Your task to perform on an android device: Clear the cart on bestbuy. Add logitech g910 to the cart on bestbuy, then select checkout. Image 0: 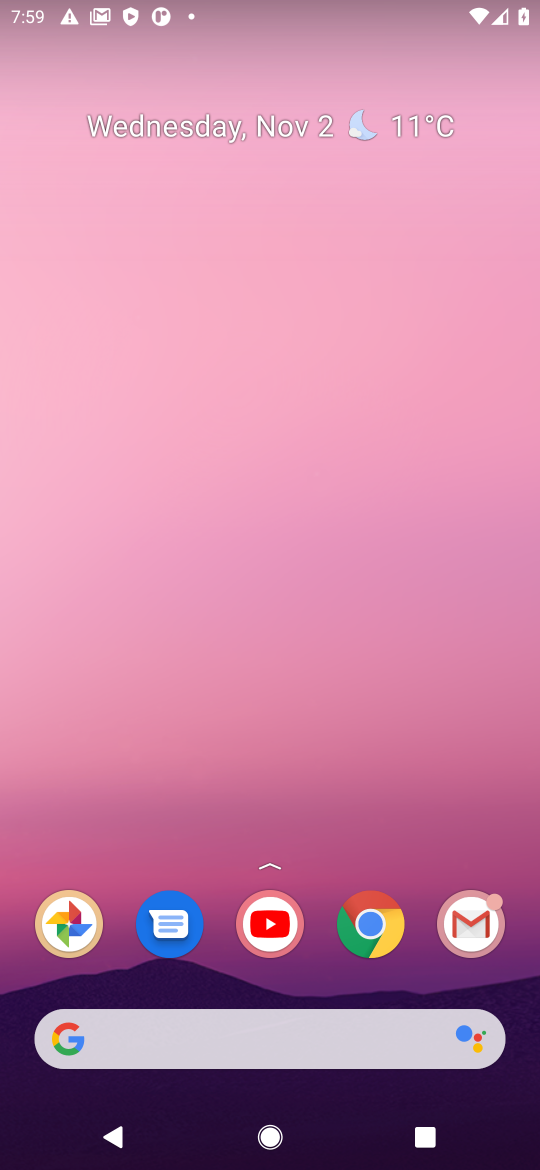
Step 0: click (367, 941)
Your task to perform on an android device: Clear the cart on bestbuy. Add logitech g910 to the cart on bestbuy, then select checkout. Image 1: 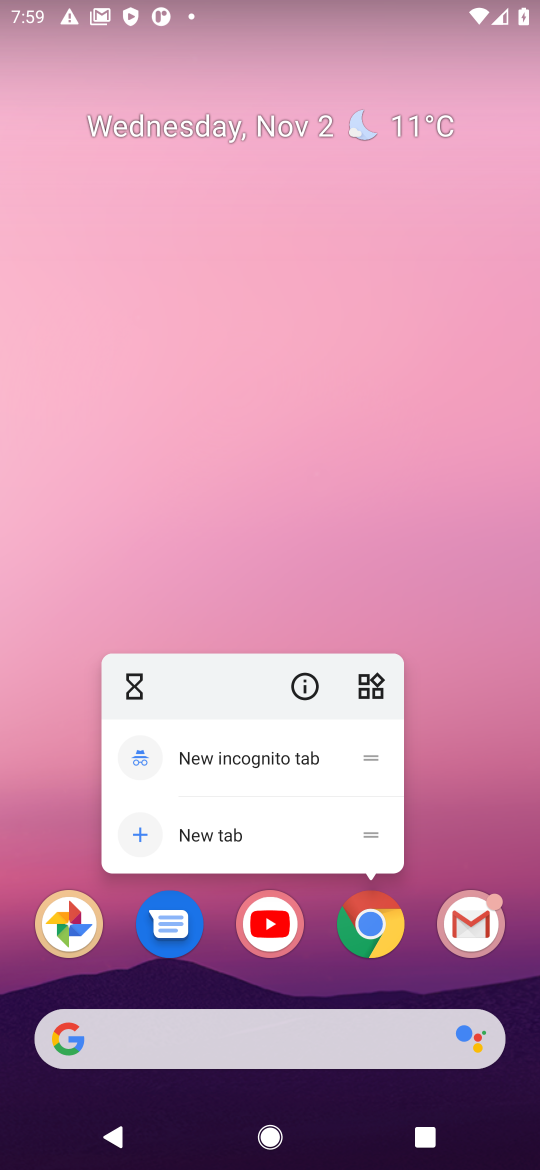
Step 1: click (375, 916)
Your task to perform on an android device: Clear the cart on bestbuy. Add logitech g910 to the cart on bestbuy, then select checkout. Image 2: 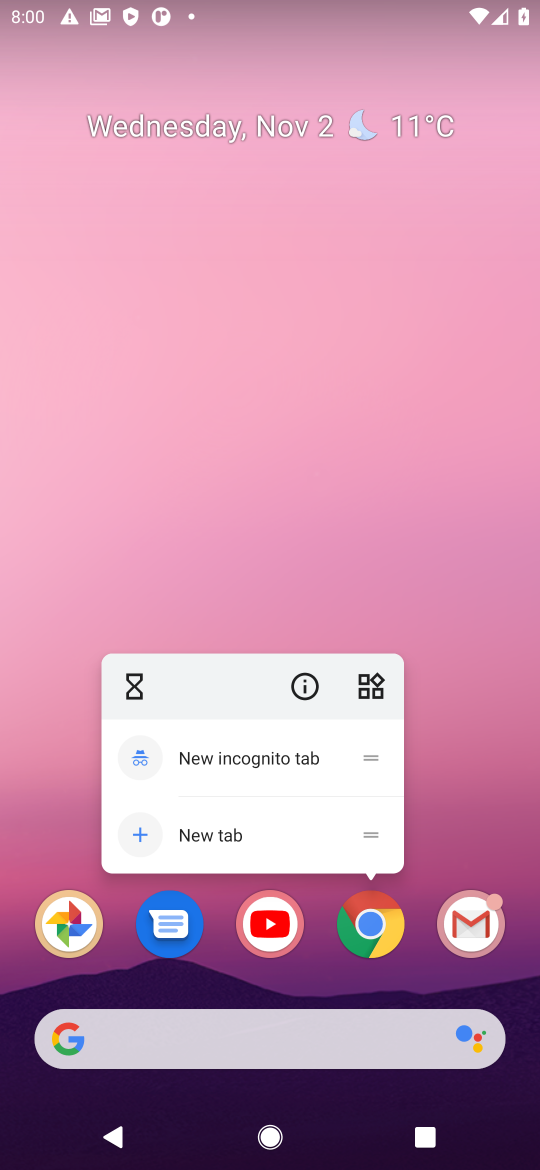
Step 2: click (359, 941)
Your task to perform on an android device: Clear the cart on bestbuy. Add logitech g910 to the cart on bestbuy, then select checkout. Image 3: 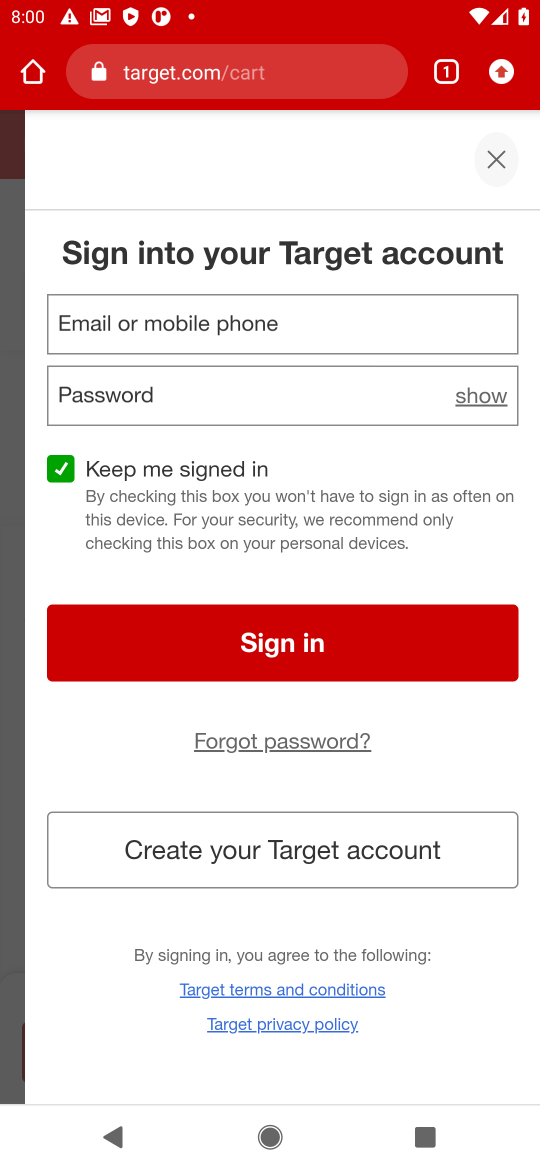
Step 3: click (255, 70)
Your task to perform on an android device: Clear the cart on bestbuy. Add logitech g910 to the cart on bestbuy, then select checkout. Image 4: 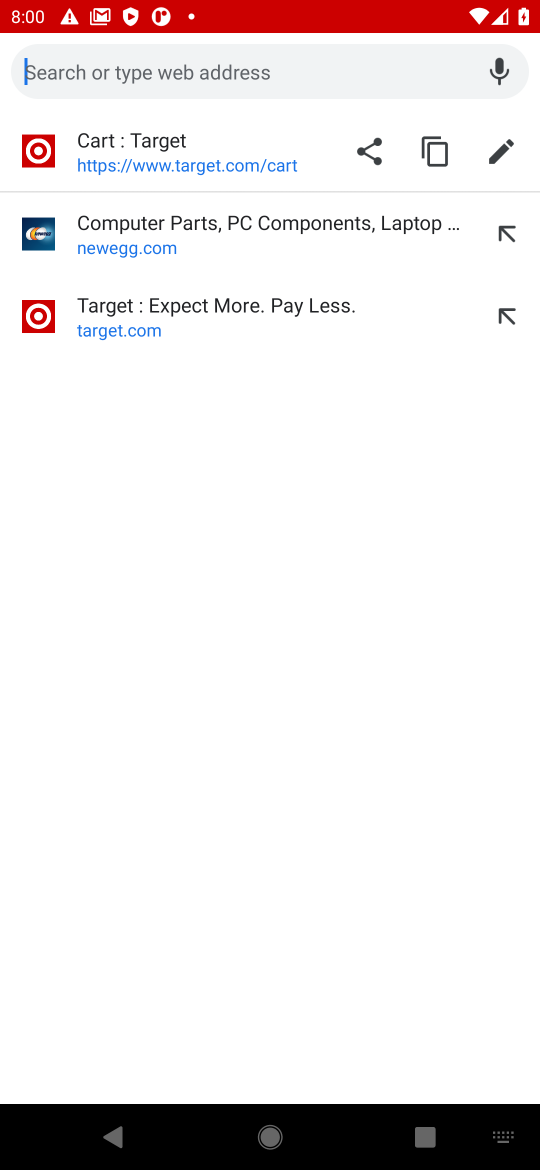
Step 4: type "bestbuy"
Your task to perform on an android device: Clear the cart on bestbuy. Add logitech g910 to the cart on bestbuy, then select checkout. Image 5: 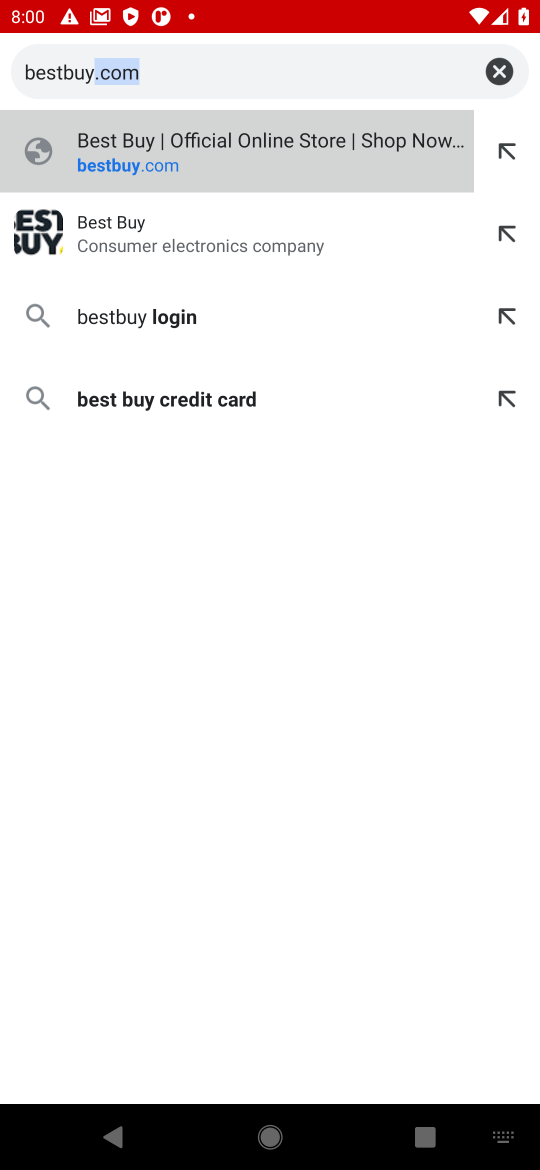
Step 5: type ""
Your task to perform on an android device: Clear the cart on bestbuy. Add logitech g910 to the cart on bestbuy, then select checkout. Image 6: 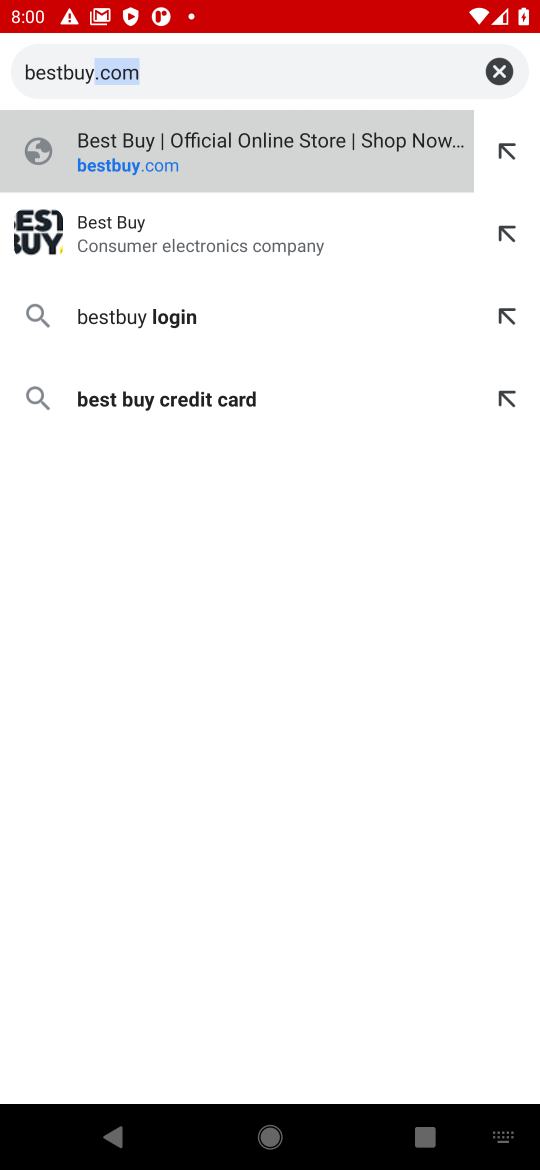
Step 6: click (113, 250)
Your task to perform on an android device: Clear the cart on bestbuy. Add logitech g910 to the cart on bestbuy, then select checkout. Image 7: 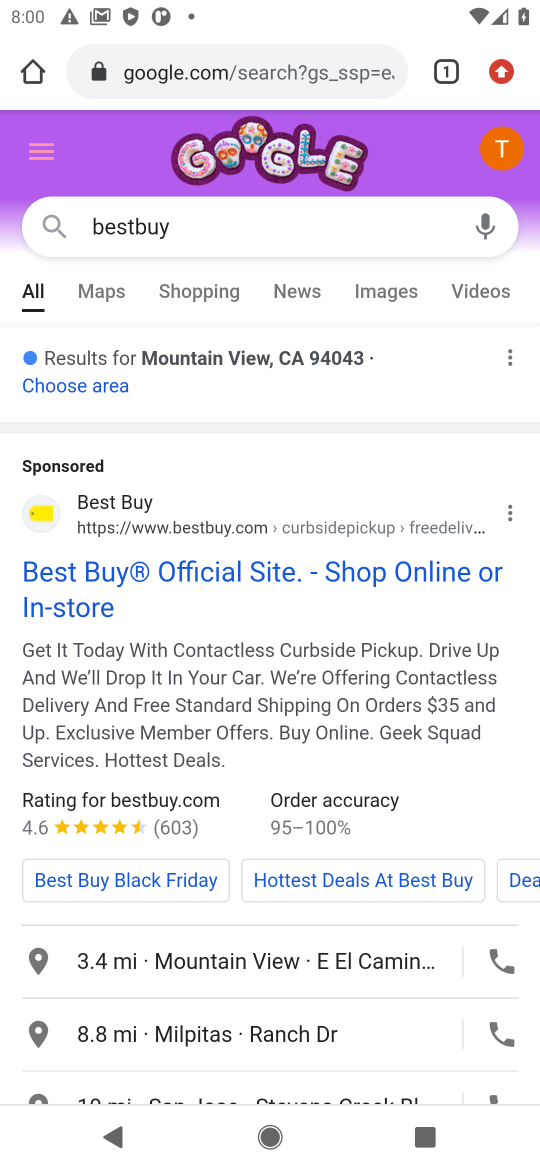
Step 7: click (181, 568)
Your task to perform on an android device: Clear the cart on bestbuy. Add logitech g910 to the cart on bestbuy, then select checkout. Image 8: 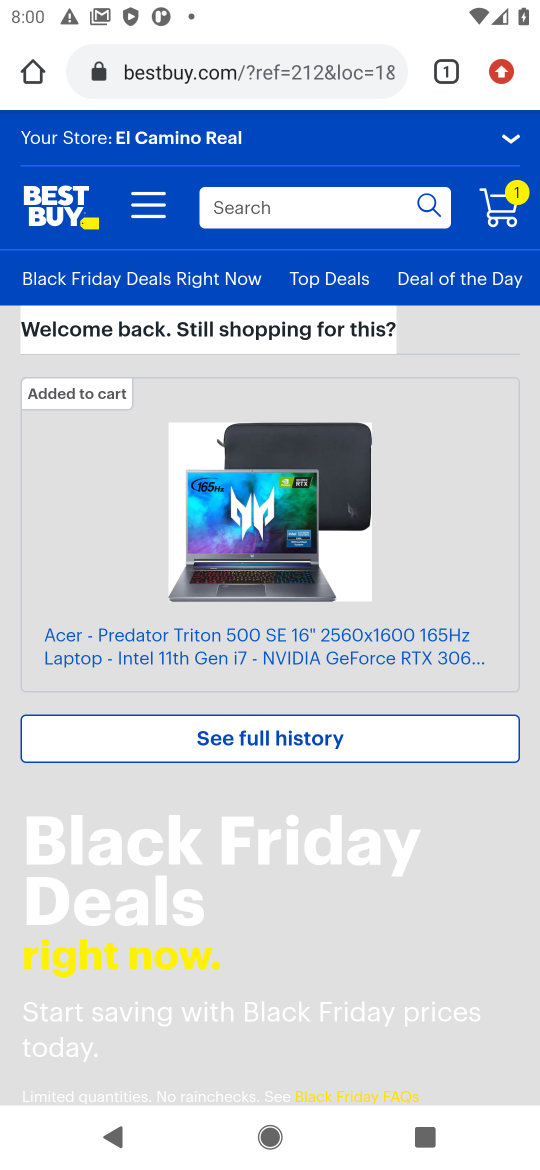
Step 8: click (259, 202)
Your task to perform on an android device: Clear the cart on bestbuy. Add logitech g910 to the cart on bestbuy, then select checkout. Image 9: 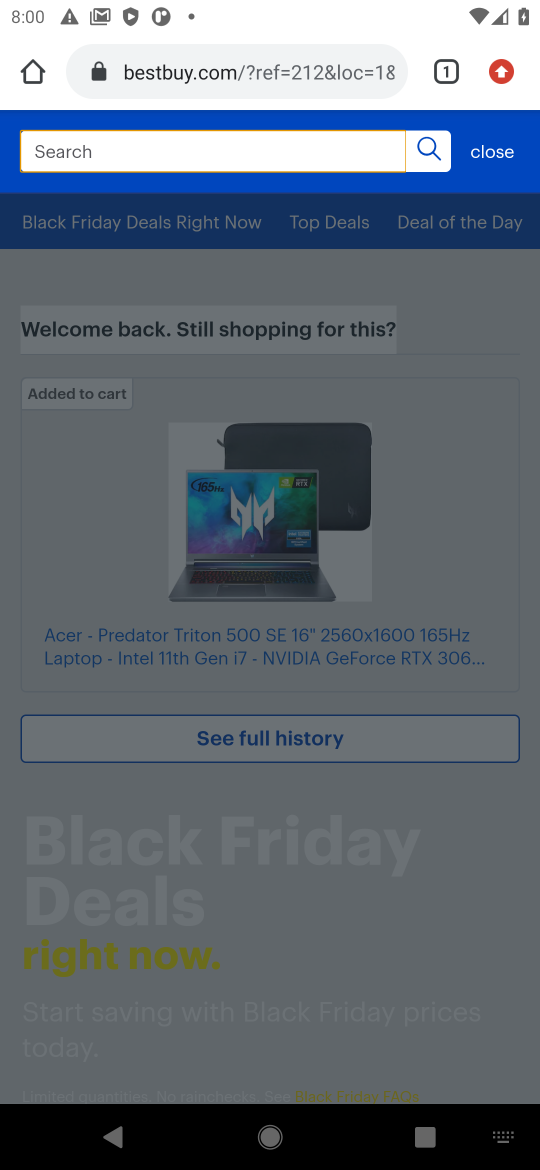
Step 9: type "logitech g 910"
Your task to perform on an android device: Clear the cart on bestbuy. Add logitech g910 to the cart on bestbuy, then select checkout. Image 10: 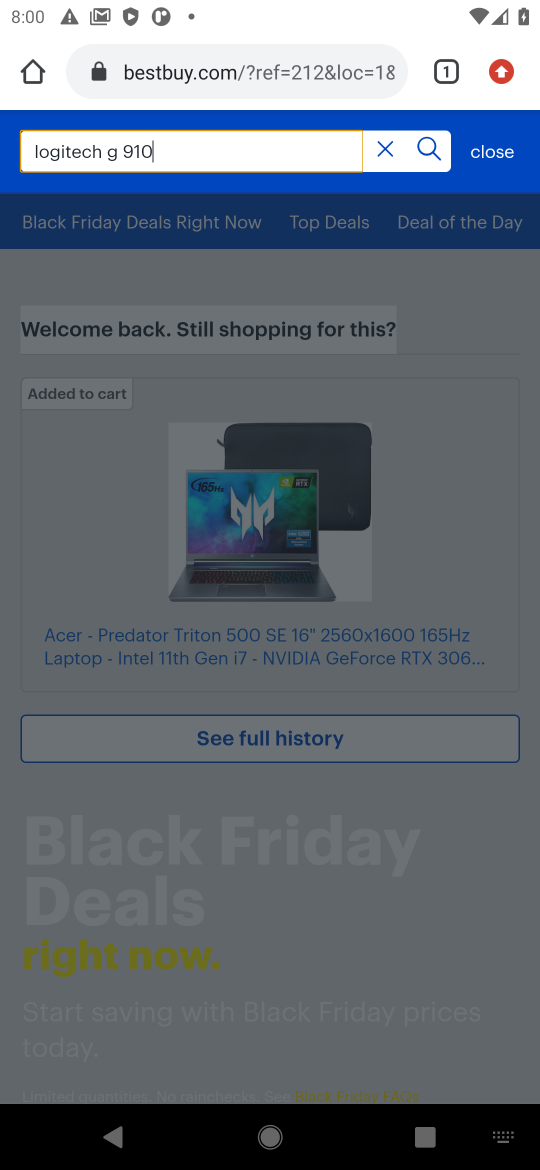
Step 10: type ""
Your task to perform on an android device: Clear the cart on bestbuy. Add logitech g910 to the cart on bestbuy, then select checkout. Image 11: 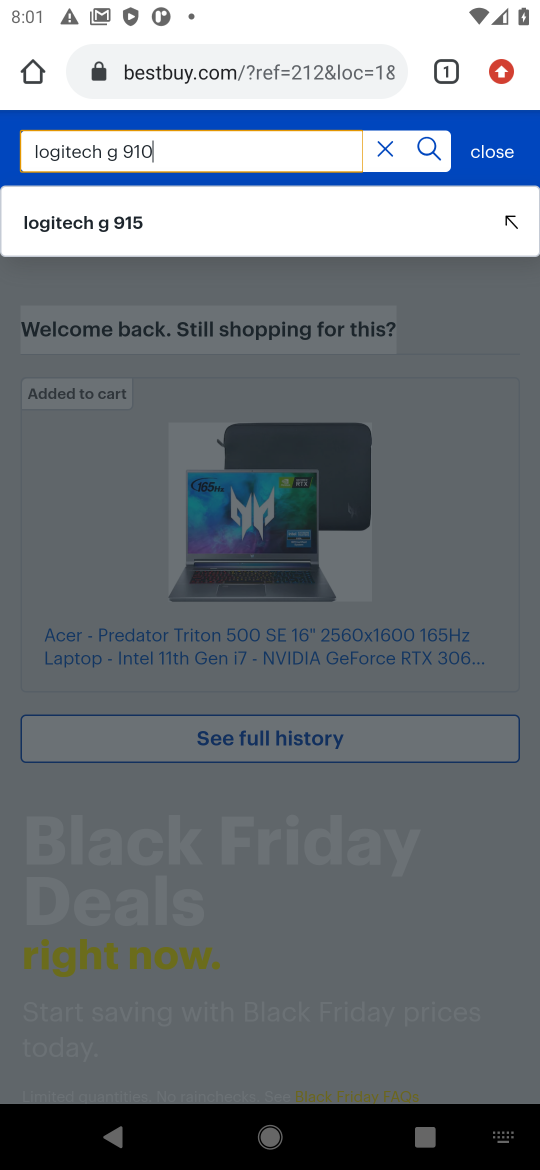
Step 11: click (439, 169)
Your task to perform on an android device: Clear the cart on bestbuy. Add logitech g910 to the cart on bestbuy, then select checkout. Image 12: 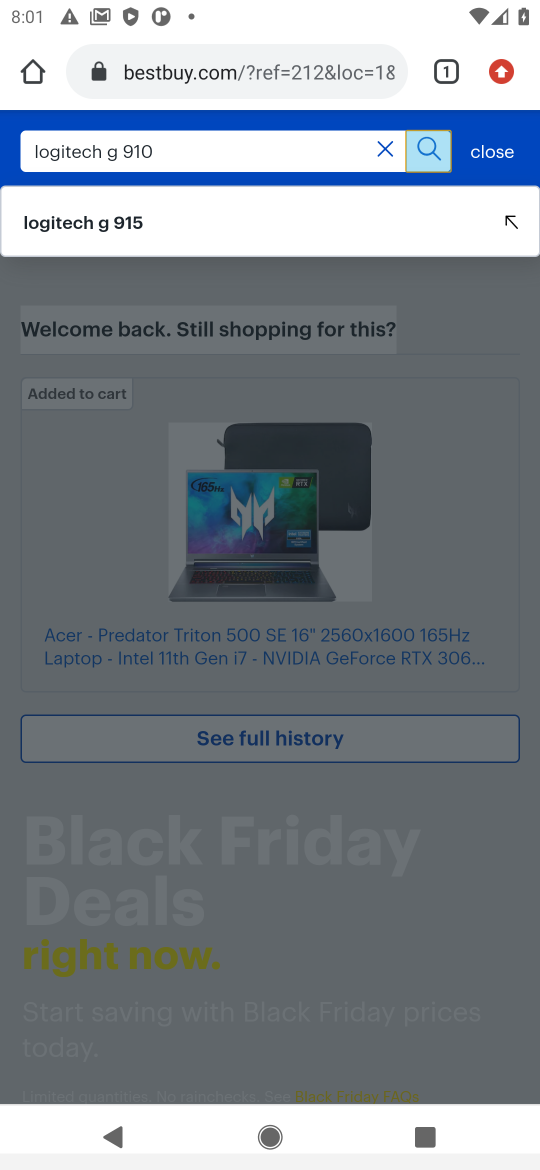
Step 12: click (431, 152)
Your task to perform on an android device: Clear the cart on bestbuy. Add logitech g910 to the cart on bestbuy, then select checkout. Image 13: 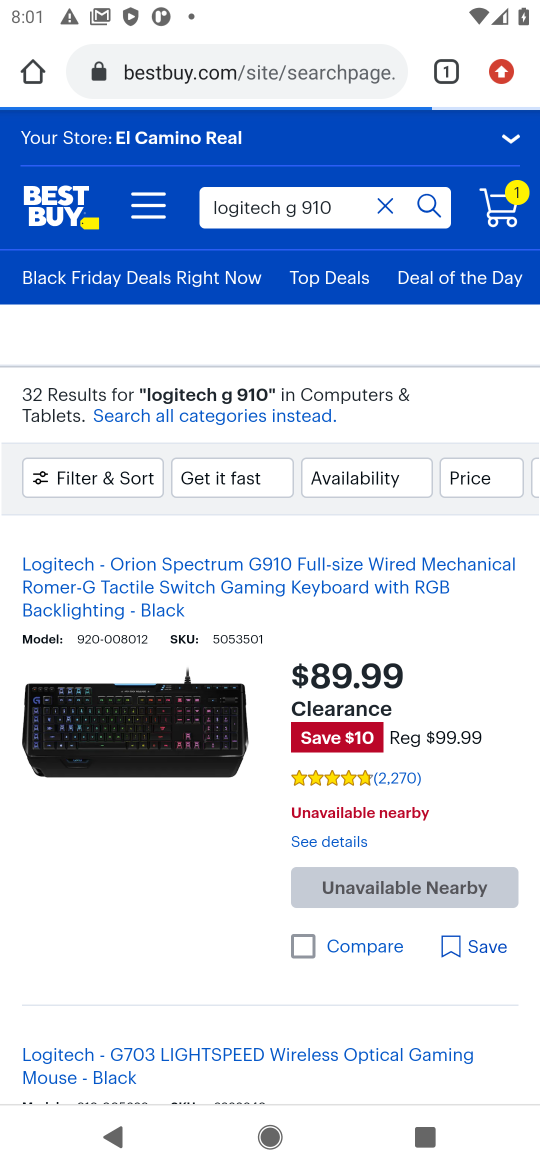
Step 13: drag from (81, 963) to (156, 641)
Your task to perform on an android device: Clear the cart on bestbuy. Add logitech g910 to the cart on bestbuy, then select checkout. Image 14: 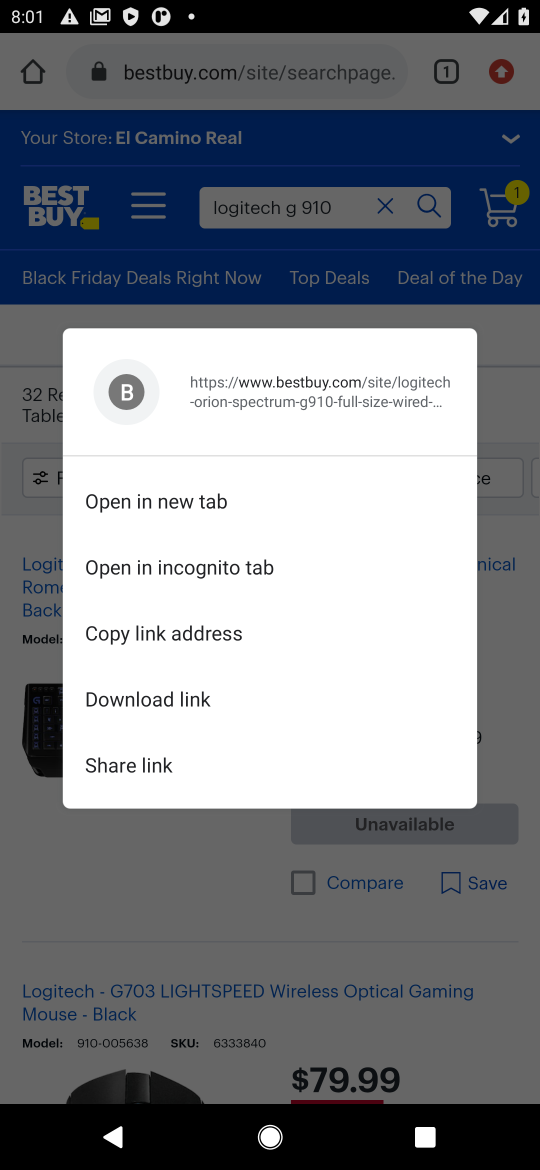
Step 14: click (181, 944)
Your task to perform on an android device: Clear the cart on bestbuy. Add logitech g910 to the cart on bestbuy, then select checkout. Image 15: 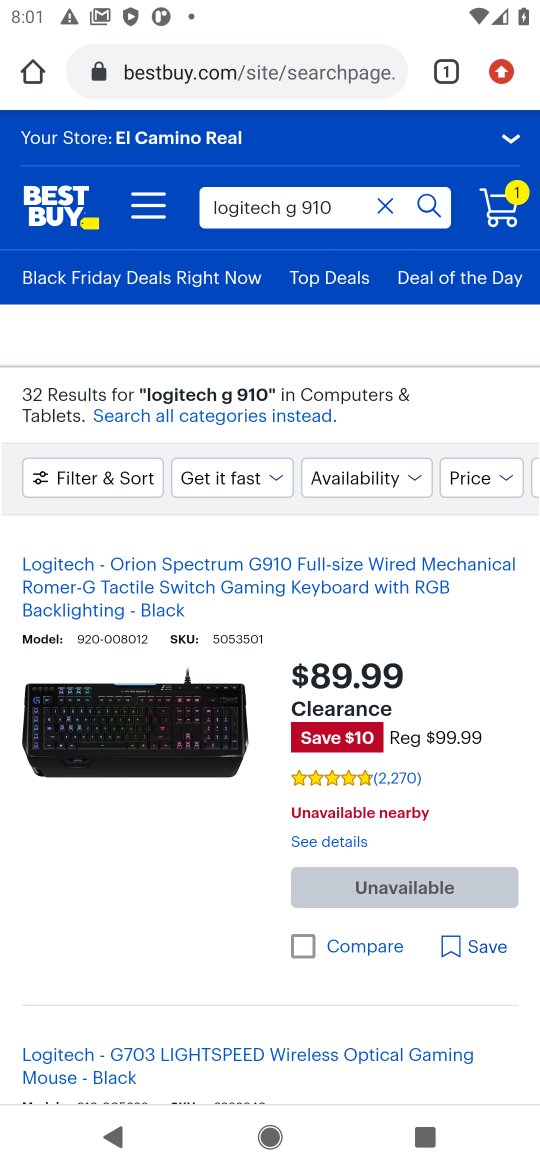
Step 15: drag from (339, 963) to (363, 412)
Your task to perform on an android device: Clear the cart on bestbuy. Add logitech g910 to the cart on bestbuy, then select checkout. Image 16: 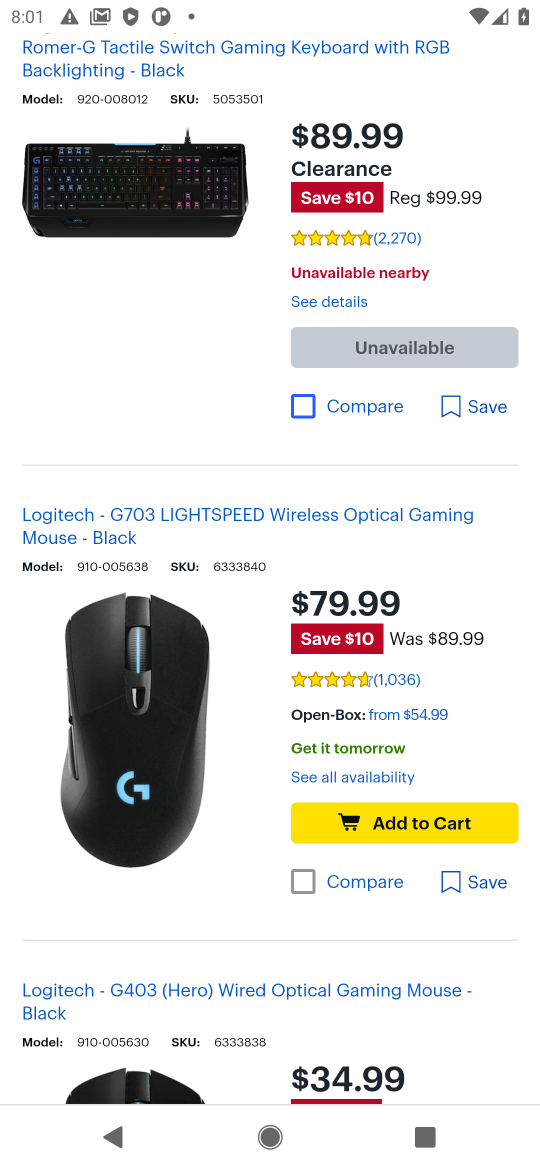
Step 16: drag from (219, 904) to (316, 139)
Your task to perform on an android device: Clear the cart on bestbuy. Add logitech g910 to the cart on bestbuy, then select checkout. Image 17: 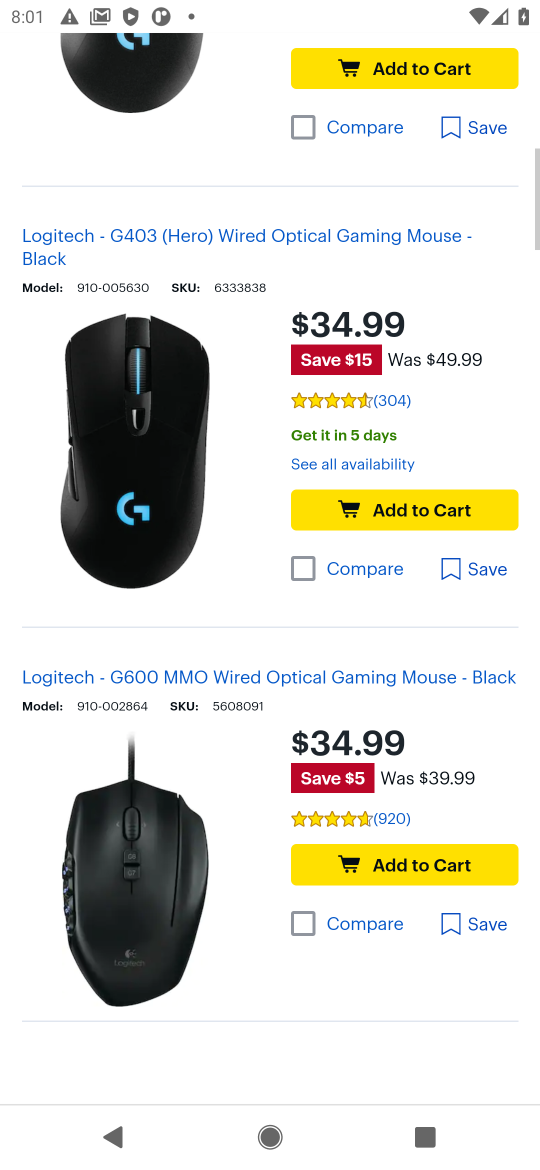
Step 17: drag from (177, 935) to (205, 589)
Your task to perform on an android device: Clear the cart on bestbuy. Add logitech g910 to the cart on bestbuy, then select checkout. Image 18: 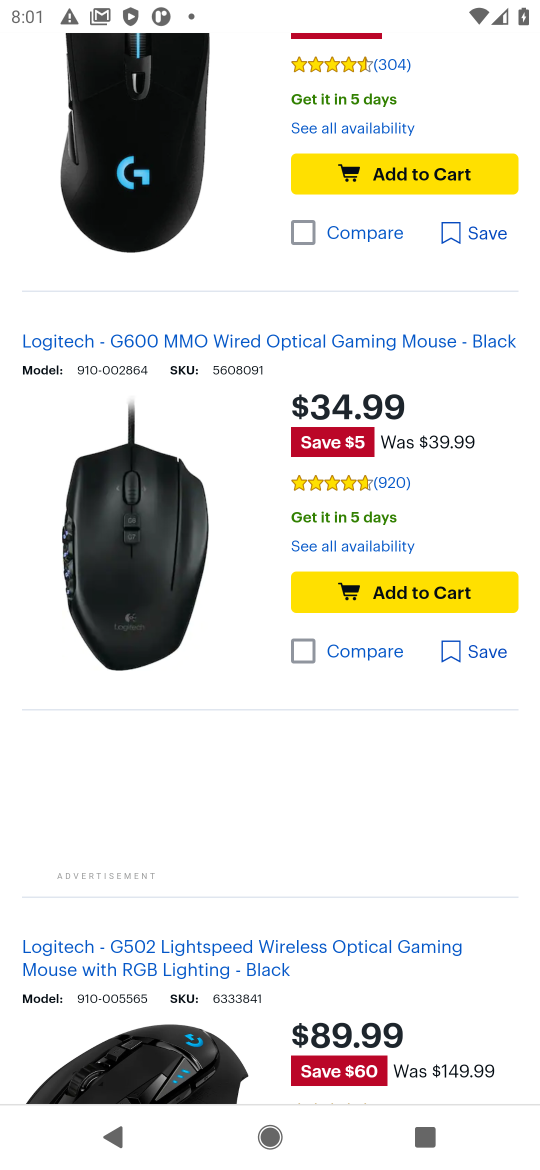
Step 18: drag from (198, 681) to (205, 570)
Your task to perform on an android device: Clear the cart on bestbuy. Add logitech g910 to the cart on bestbuy, then select checkout. Image 19: 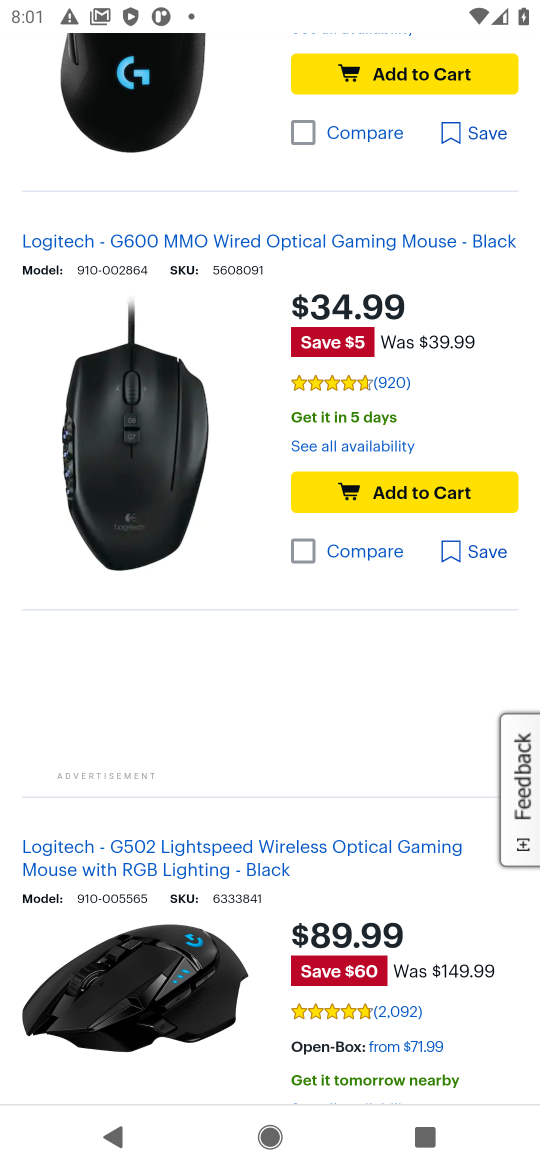
Step 19: drag from (224, 1002) to (211, 608)
Your task to perform on an android device: Clear the cart on bestbuy. Add logitech g910 to the cart on bestbuy, then select checkout. Image 20: 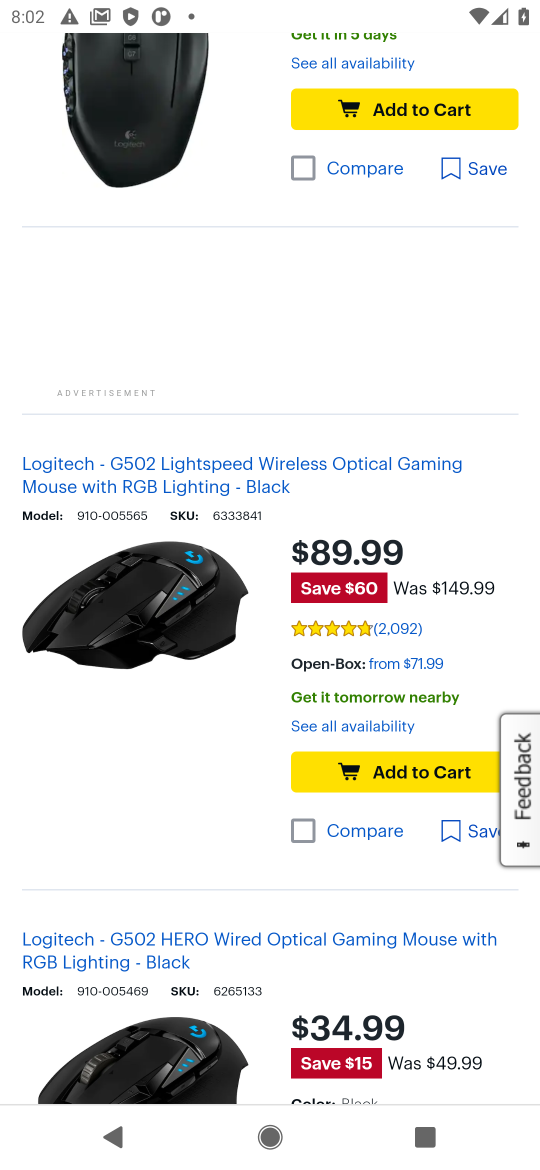
Step 20: drag from (182, 976) to (232, 355)
Your task to perform on an android device: Clear the cart on bestbuy. Add logitech g910 to the cart on bestbuy, then select checkout. Image 21: 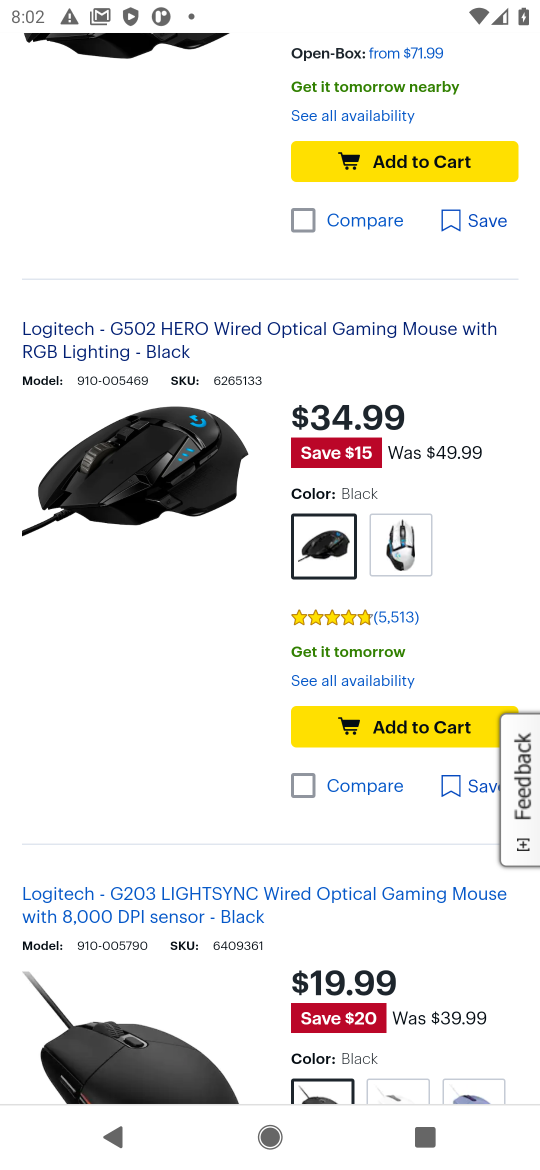
Step 21: drag from (162, 1000) to (261, 42)
Your task to perform on an android device: Clear the cart on bestbuy. Add logitech g910 to the cart on bestbuy, then select checkout. Image 22: 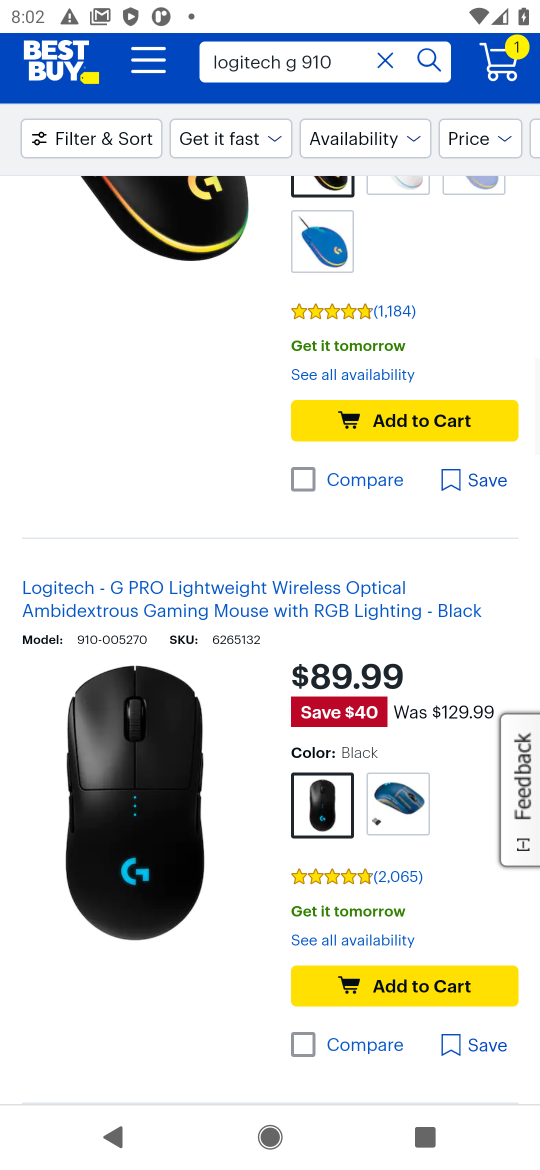
Step 22: drag from (192, 859) to (207, 40)
Your task to perform on an android device: Clear the cart on bestbuy. Add logitech g910 to the cart on bestbuy, then select checkout. Image 23: 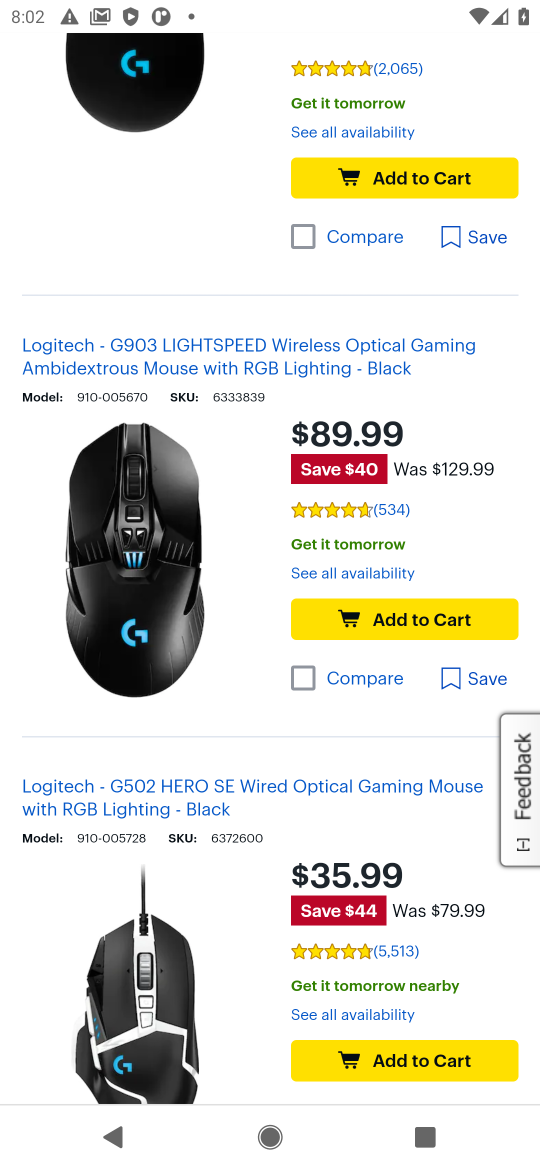
Step 23: drag from (112, 1041) to (93, 230)
Your task to perform on an android device: Clear the cart on bestbuy. Add logitech g910 to the cart on bestbuy, then select checkout. Image 24: 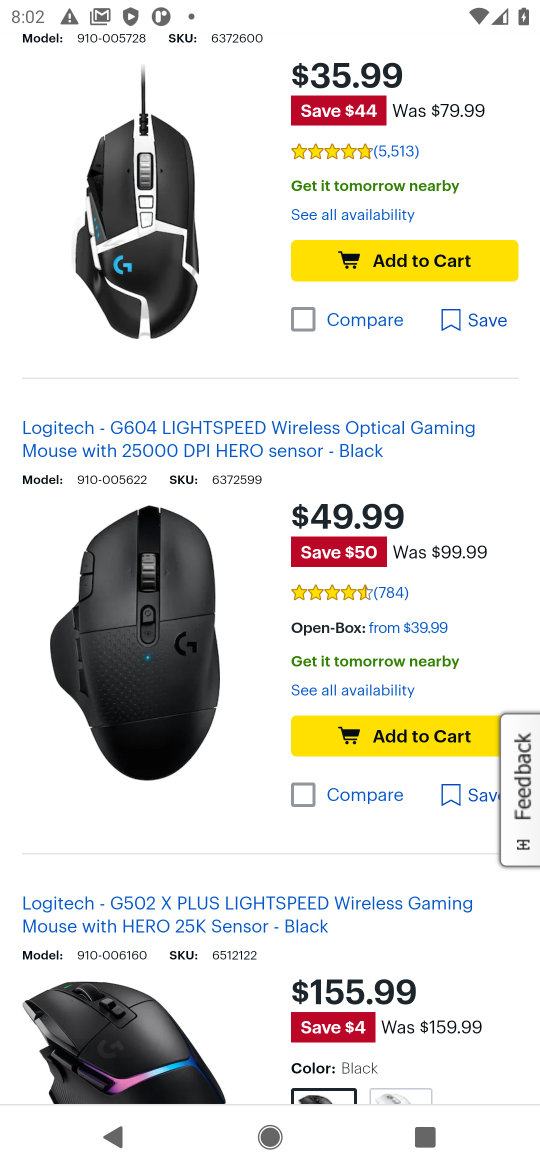
Step 24: click (155, 1015)
Your task to perform on an android device: Clear the cart on bestbuy. Add logitech g910 to the cart on bestbuy, then select checkout. Image 25: 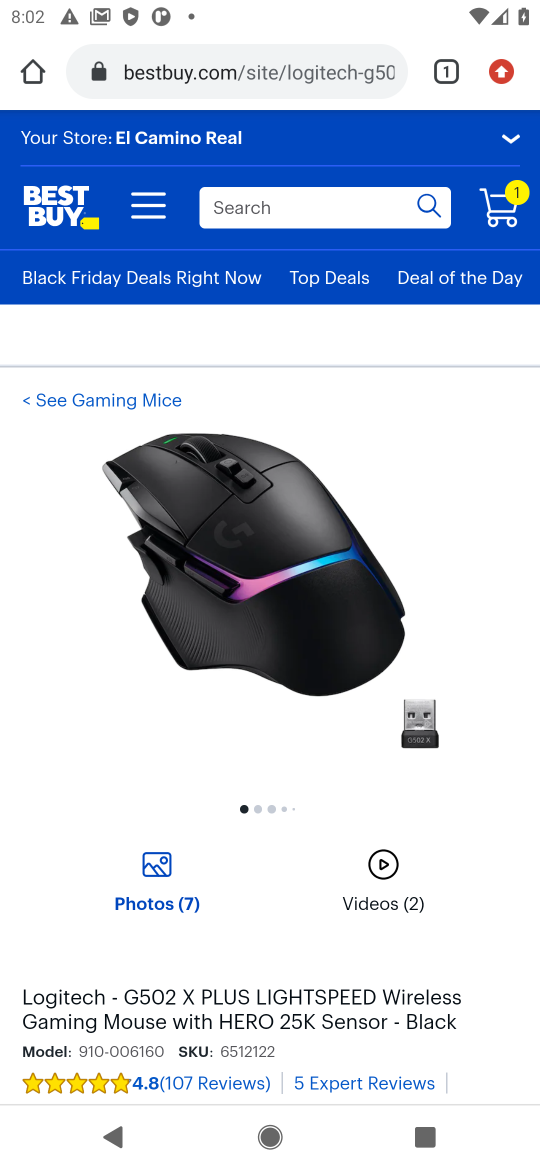
Step 25: drag from (151, 844) to (151, 3)
Your task to perform on an android device: Clear the cart on bestbuy. Add logitech g910 to the cart on bestbuy, then select checkout. Image 26: 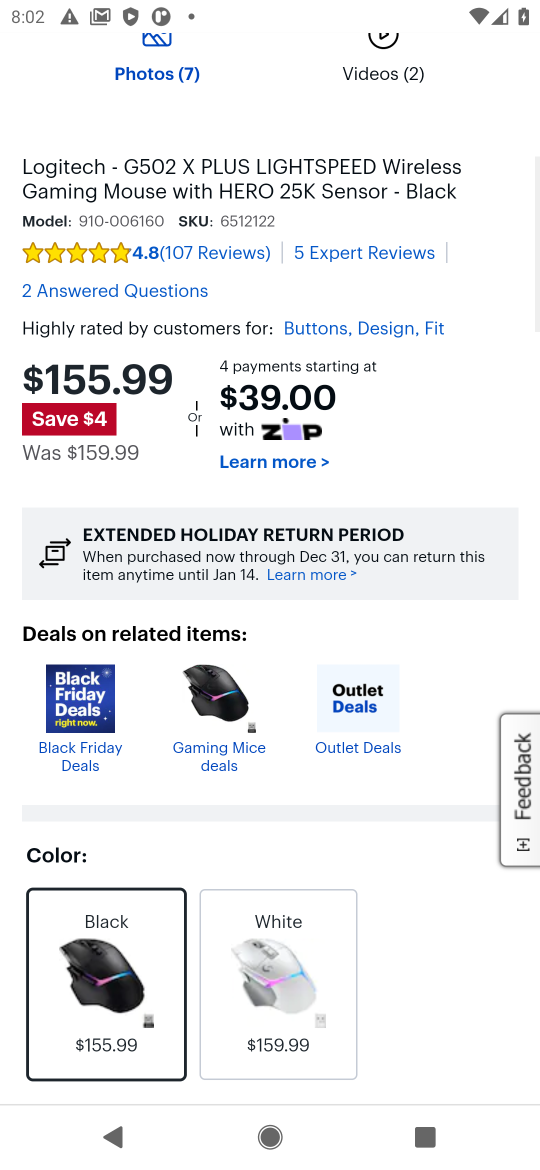
Step 26: drag from (128, 1025) to (119, 223)
Your task to perform on an android device: Clear the cart on bestbuy. Add logitech g910 to the cart on bestbuy, then select checkout. Image 27: 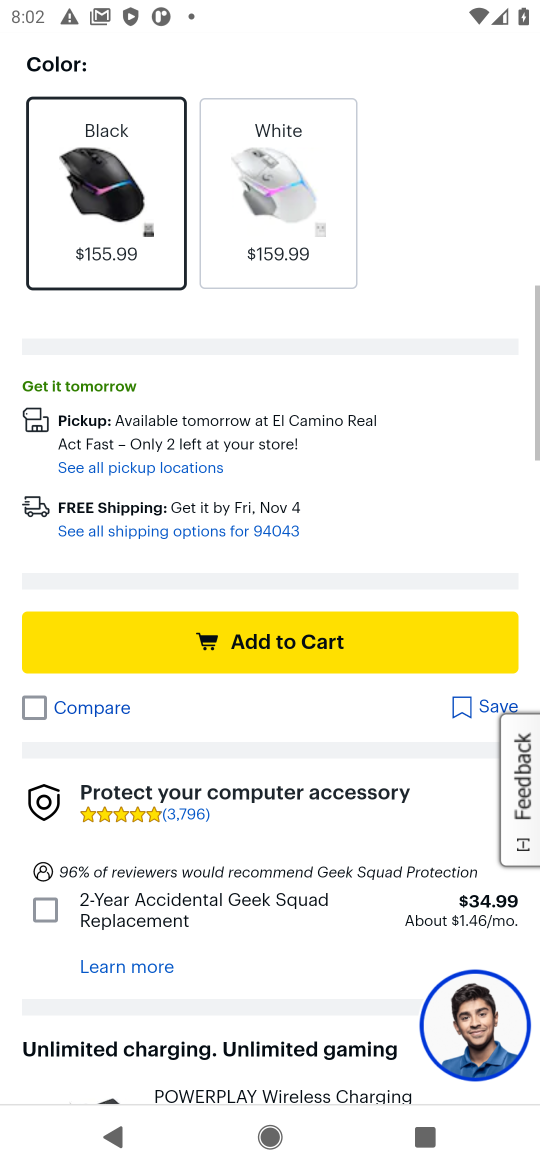
Step 27: click (312, 684)
Your task to perform on an android device: Clear the cart on bestbuy. Add logitech g910 to the cart on bestbuy, then select checkout. Image 28: 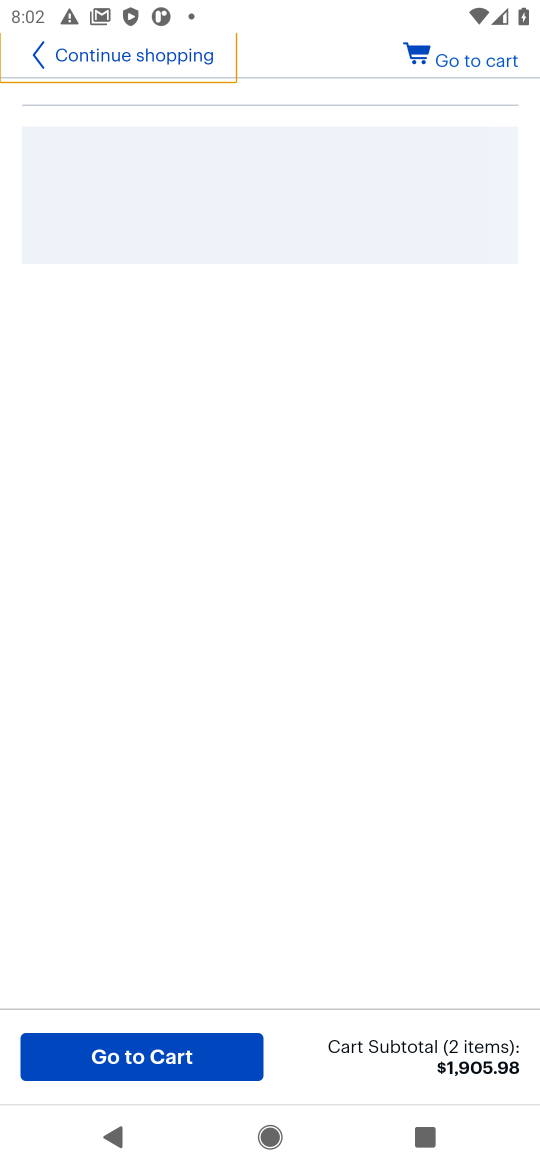
Step 28: click (159, 1062)
Your task to perform on an android device: Clear the cart on bestbuy. Add logitech g910 to the cart on bestbuy, then select checkout. Image 29: 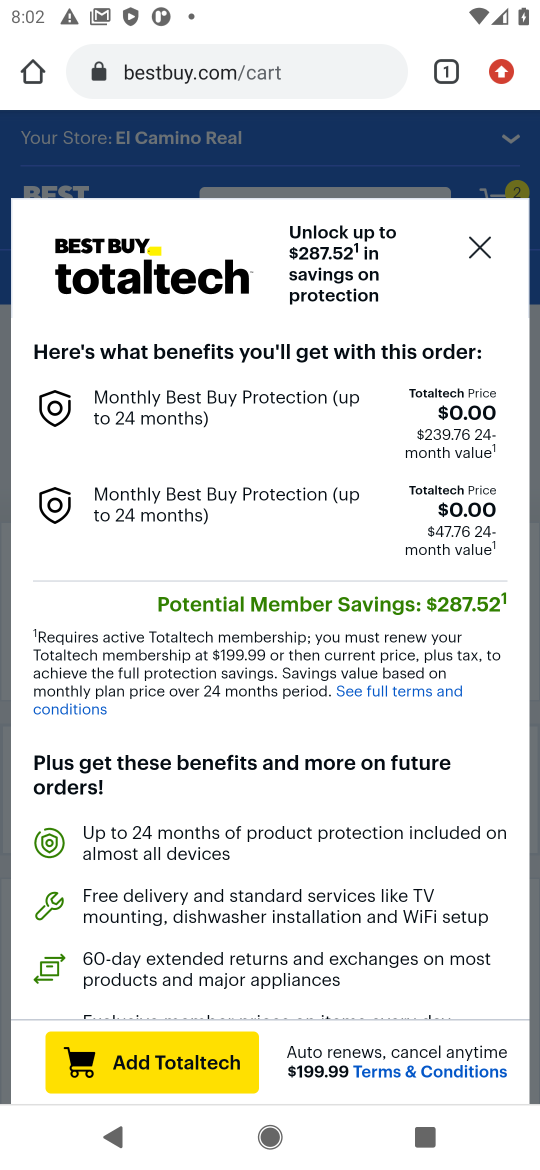
Step 29: click (327, 626)
Your task to perform on an android device: Clear the cart on bestbuy. Add logitech g910 to the cart on bestbuy, then select checkout. Image 30: 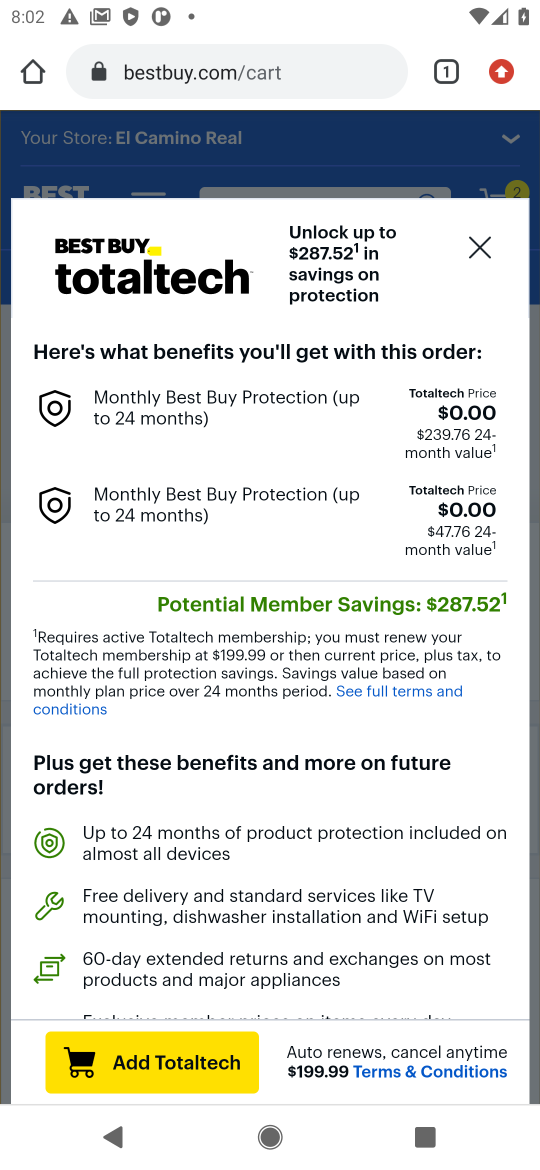
Step 30: click (479, 251)
Your task to perform on an android device: Clear the cart on bestbuy. Add logitech g910 to the cart on bestbuy, then select checkout. Image 31: 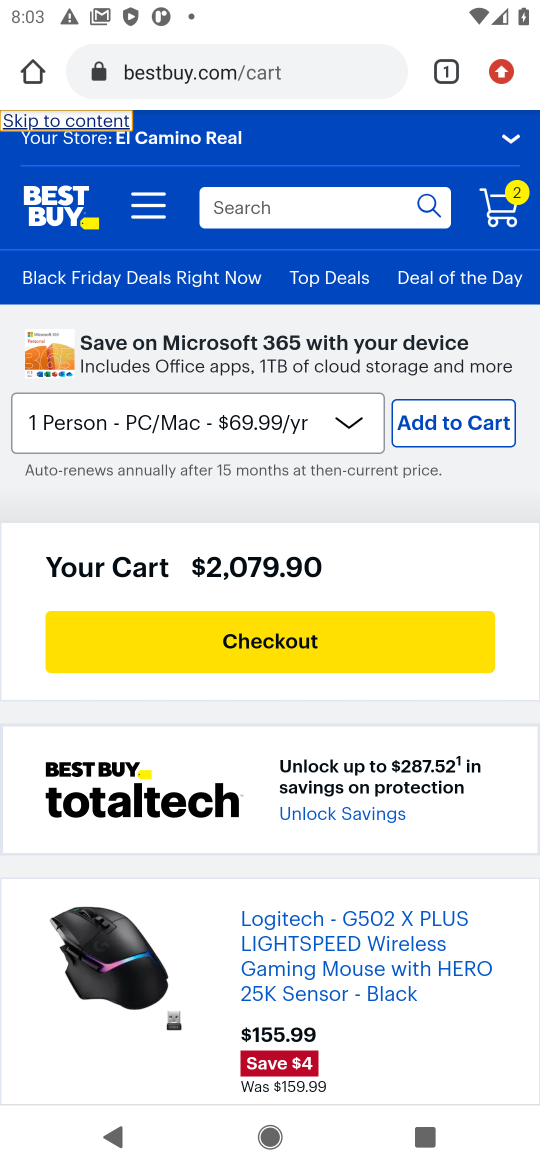
Step 31: click (297, 643)
Your task to perform on an android device: Clear the cart on bestbuy. Add logitech g910 to the cart on bestbuy, then select checkout. Image 32: 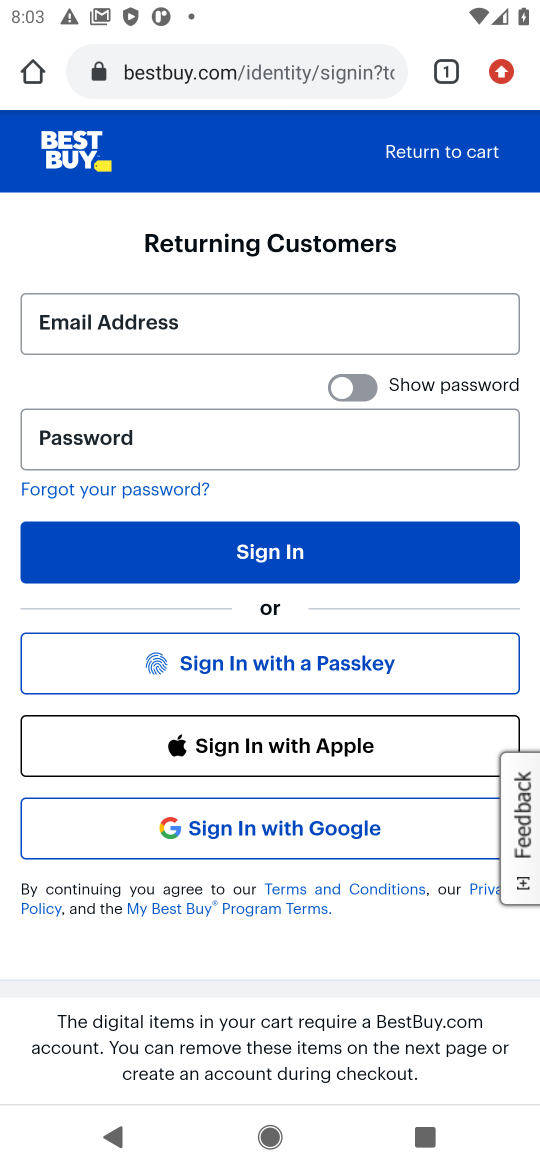
Step 32: task complete